Your task to perform on an android device: change the clock display to digital Image 0: 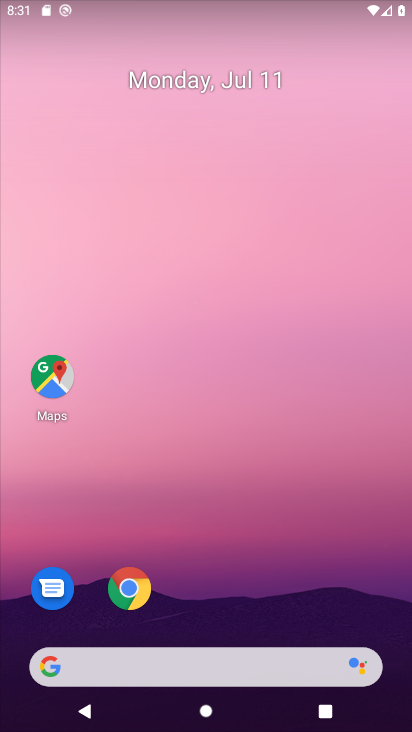
Step 0: drag from (224, 574) to (314, 163)
Your task to perform on an android device: change the clock display to digital Image 1: 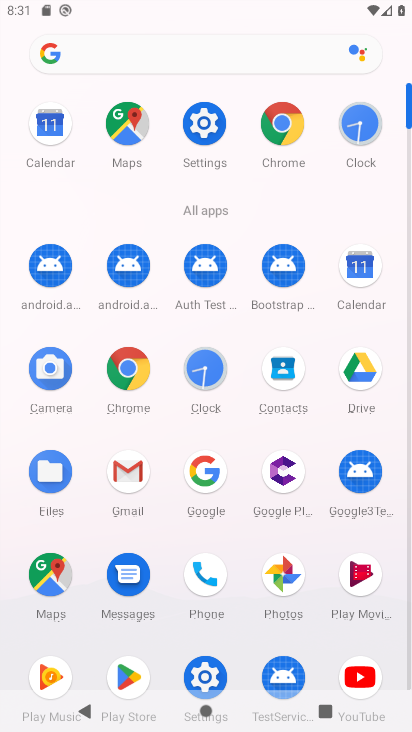
Step 1: click (356, 130)
Your task to perform on an android device: change the clock display to digital Image 2: 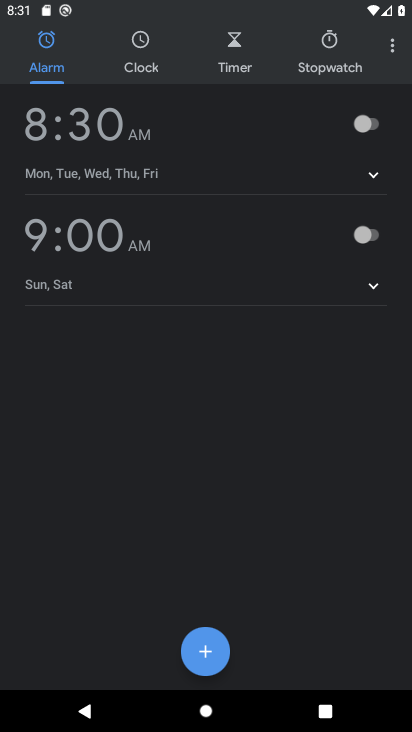
Step 2: click (391, 40)
Your task to perform on an android device: change the clock display to digital Image 3: 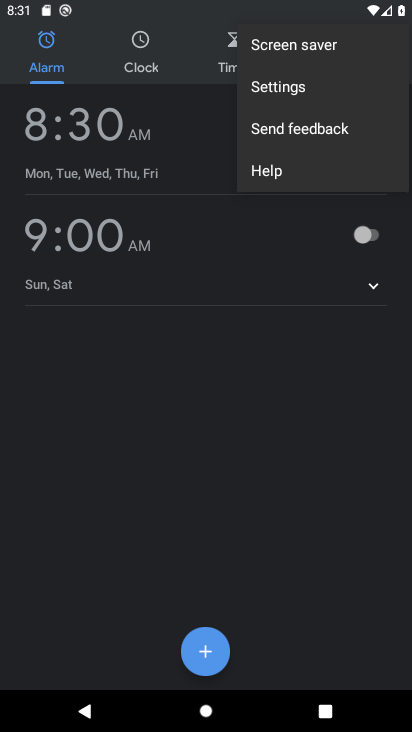
Step 3: click (288, 85)
Your task to perform on an android device: change the clock display to digital Image 4: 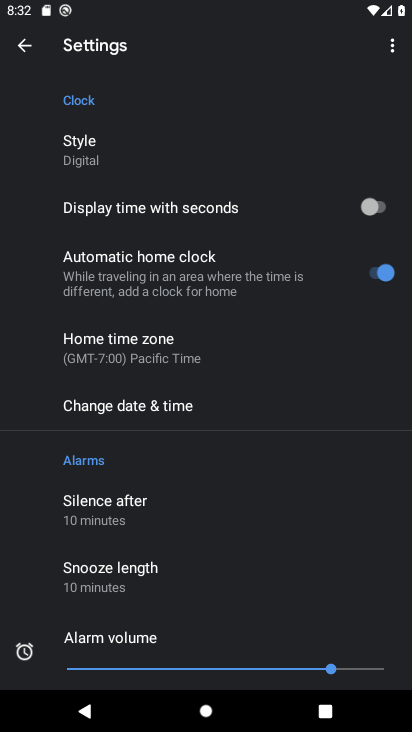
Step 4: click (75, 139)
Your task to perform on an android device: change the clock display to digital Image 5: 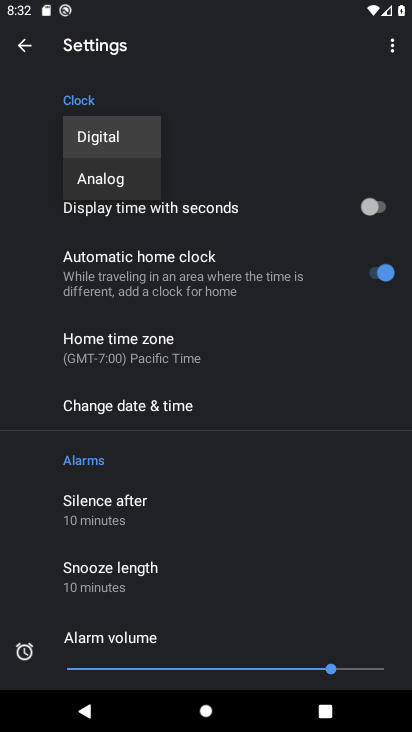
Step 5: click (120, 137)
Your task to perform on an android device: change the clock display to digital Image 6: 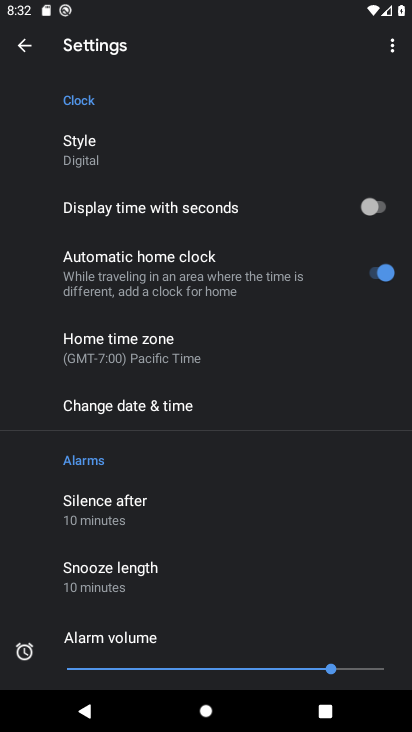
Step 6: task complete